Your task to perform on an android device: Open notification settings Image 0: 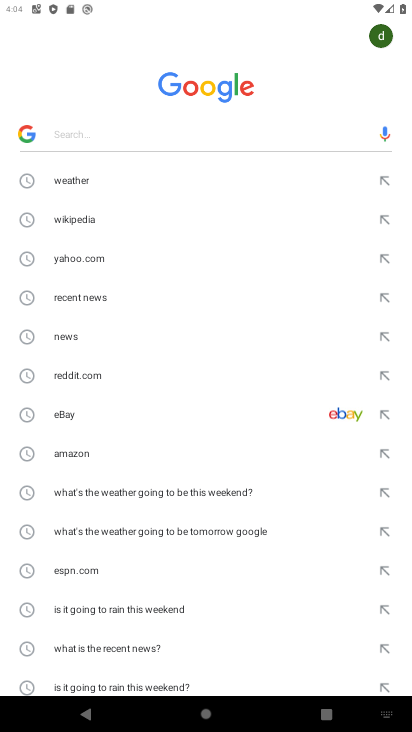
Step 0: press home button
Your task to perform on an android device: Open notification settings Image 1: 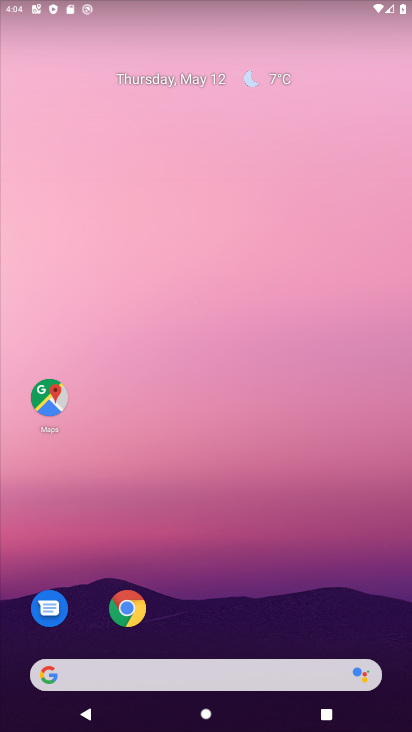
Step 1: drag from (191, 635) to (271, 174)
Your task to perform on an android device: Open notification settings Image 2: 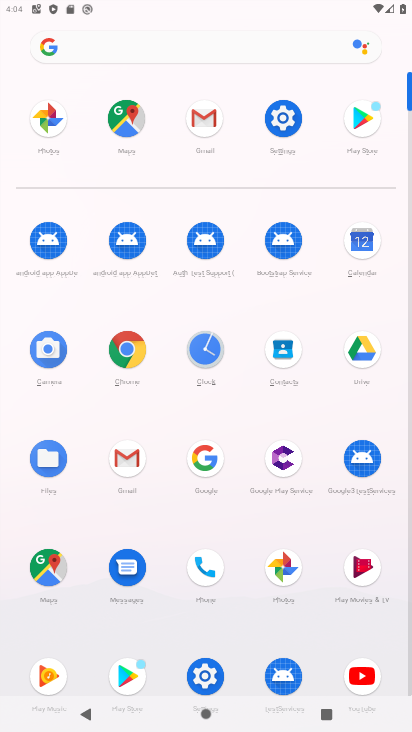
Step 2: click (287, 126)
Your task to perform on an android device: Open notification settings Image 3: 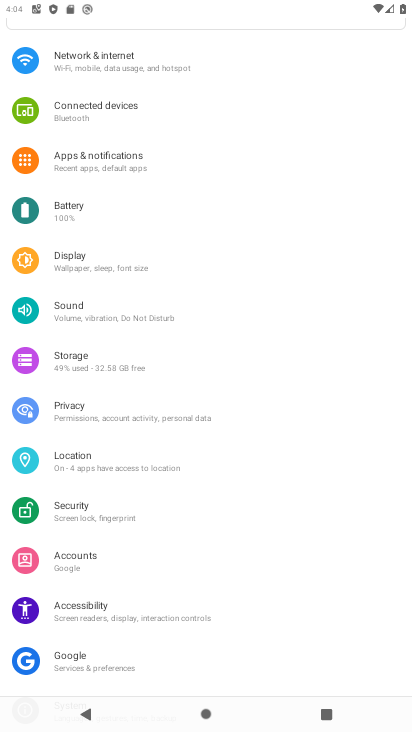
Step 3: click (187, 181)
Your task to perform on an android device: Open notification settings Image 4: 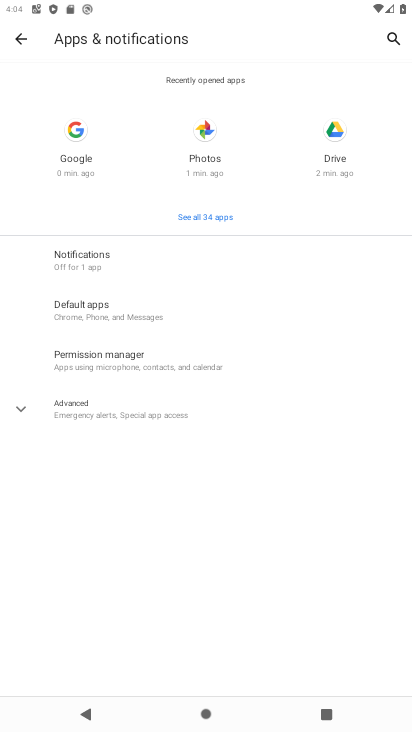
Step 4: task complete